Your task to perform on an android device: Search for pizza restaurants on Maps Image 0: 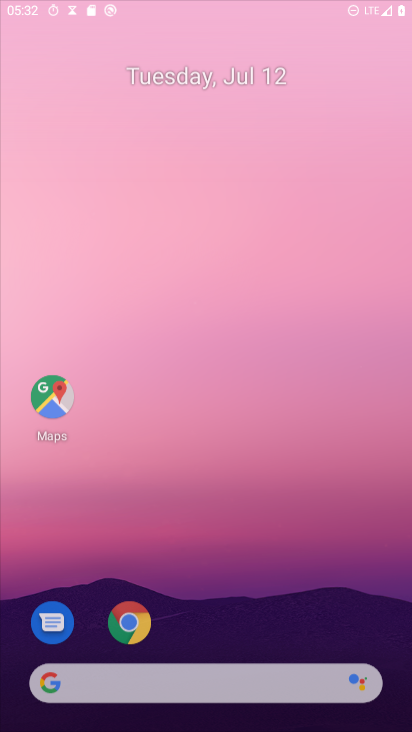
Step 0: drag from (247, 200) to (244, 58)
Your task to perform on an android device: Search for pizza restaurants on Maps Image 1: 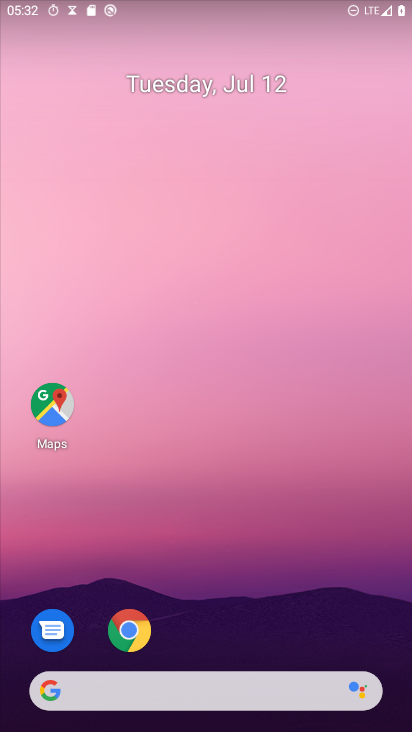
Step 1: drag from (285, 671) to (252, 1)
Your task to perform on an android device: Search for pizza restaurants on Maps Image 2: 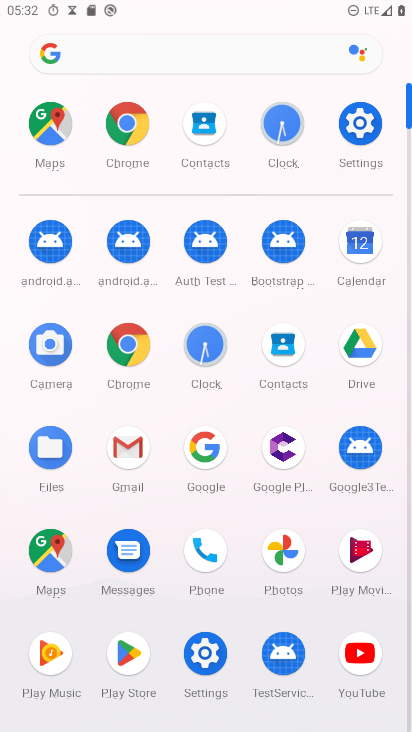
Step 2: click (53, 552)
Your task to perform on an android device: Search for pizza restaurants on Maps Image 3: 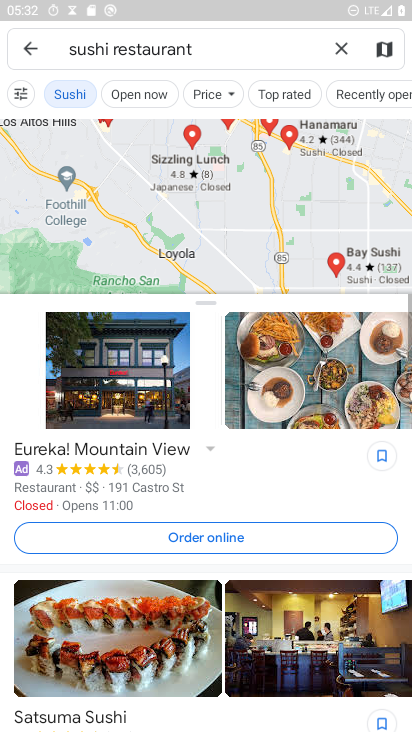
Step 3: press back button
Your task to perform on an android device: Search for pizza restaurants on Maps Image 4: 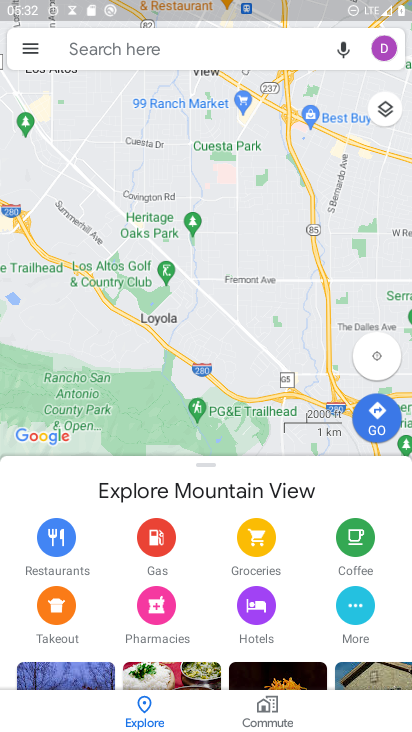
Step 4: click (220, 57)
Your task to perform on an android device: Search for pizza restaurants on Maps Image 5: 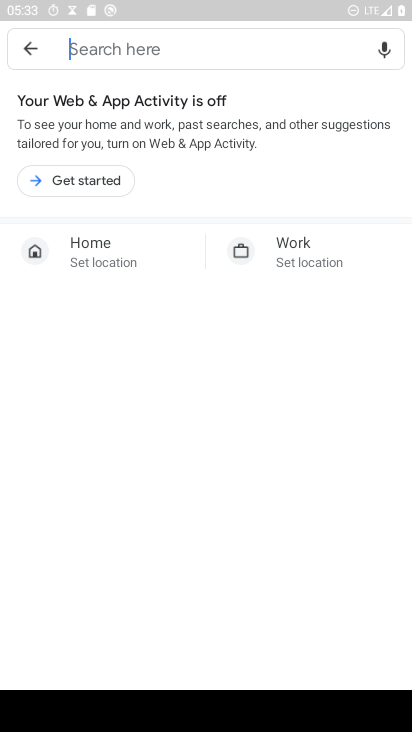
Step 5: type "pizza restaurant"
Your task to perform on an android device: Search for pizza restaurants on Maps Image 6: 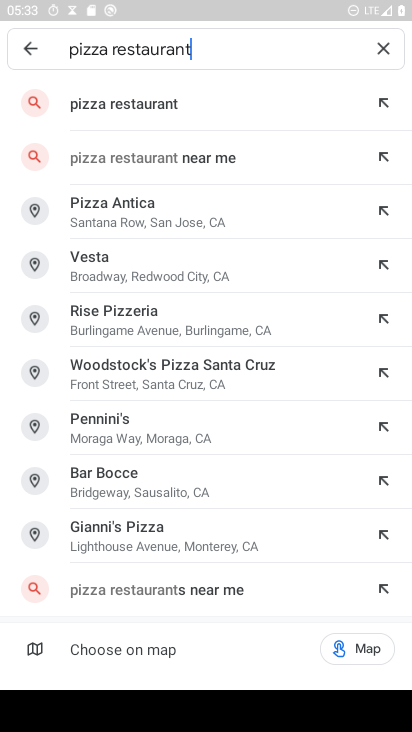
Step 6: click (167, 107)
Your task to perform on an android device: Search for pizza restaurants on Maps Image 7: 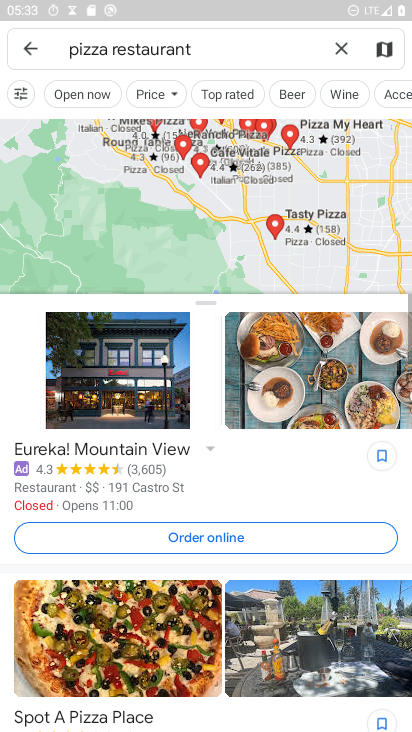
Step 7: task complete